Your task to perform on an android device: move a message to another label in the gmail app Image 0: 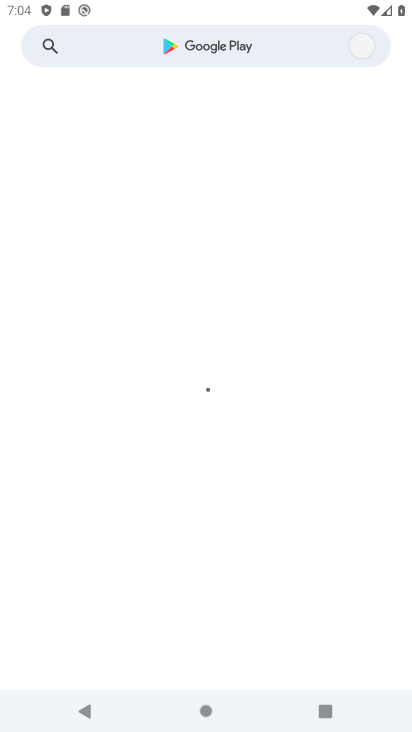
Step 0: press home button
Your task to perform on an android device: move a message to another label in the gmail app Image 1: 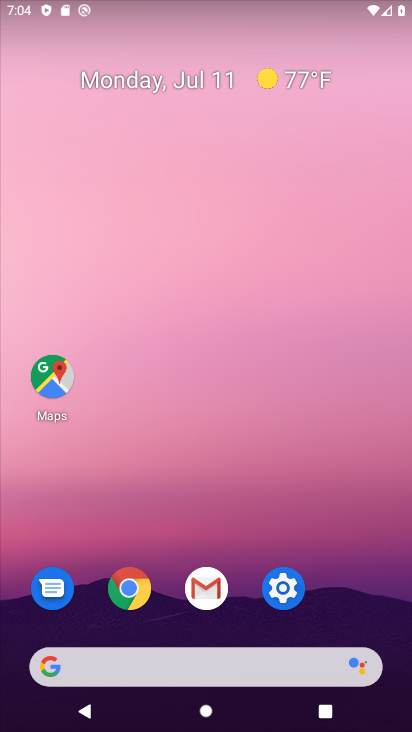
Step 1: click (223, 584)
Your task to perform on an android device: move a message to another label in the gmail app Image 2: 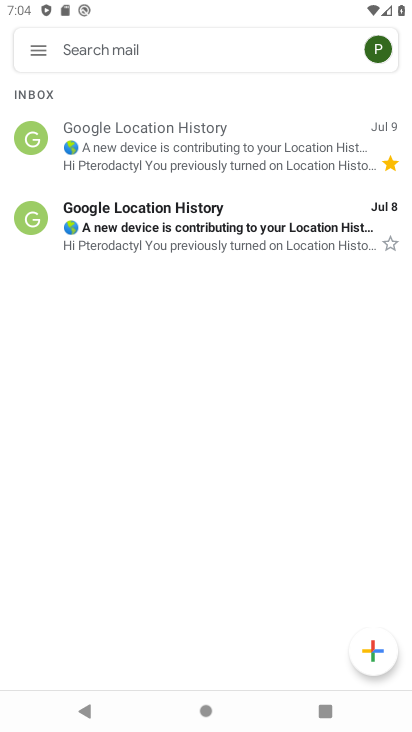
Step 2: click (37, 58)
Your task to perform on an android device: move a message to another label in the gmail app Image 3: 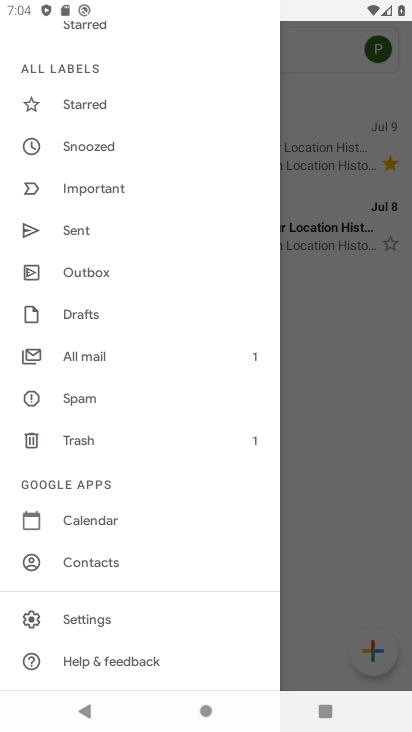
Step 3: click (321, 293)
Your task to perform on an android device: move a message to another label in the gmail app Image 4: 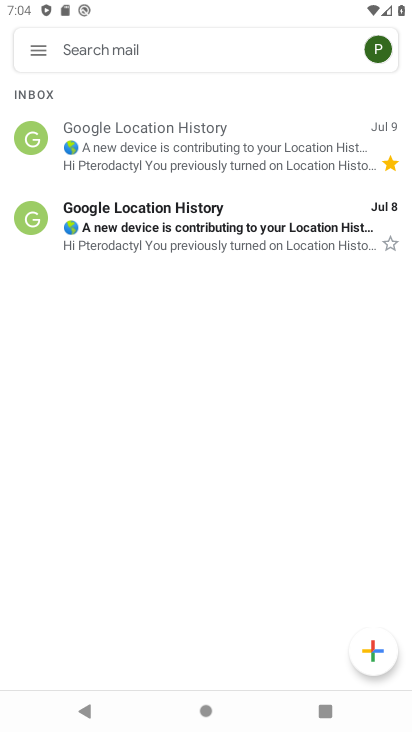
Step 4: click (269, 167)
Your task to perform on an android device: move a message to another label in the gmail app Image 5: 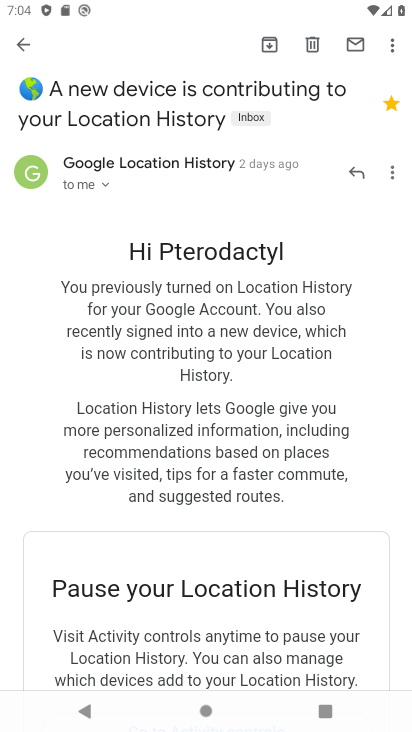
Step 5: click (396, 46)
Your task to perform on an android device: move a message to another label in the gmail app Image 6: 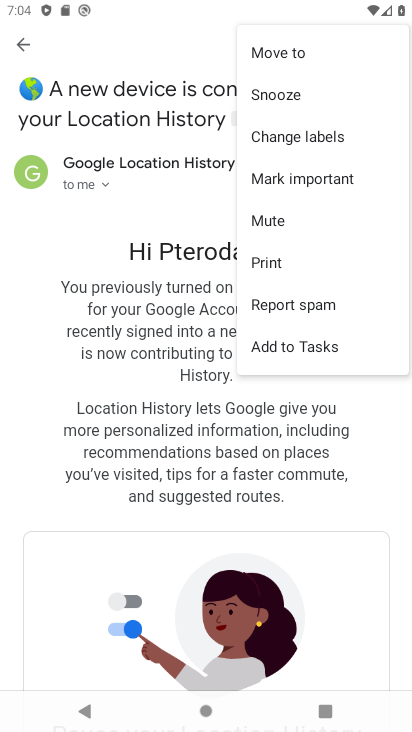
Step 6: click (301, 56)
Your task to perform on an android device: move a message to another label in the gmail app Image 7: 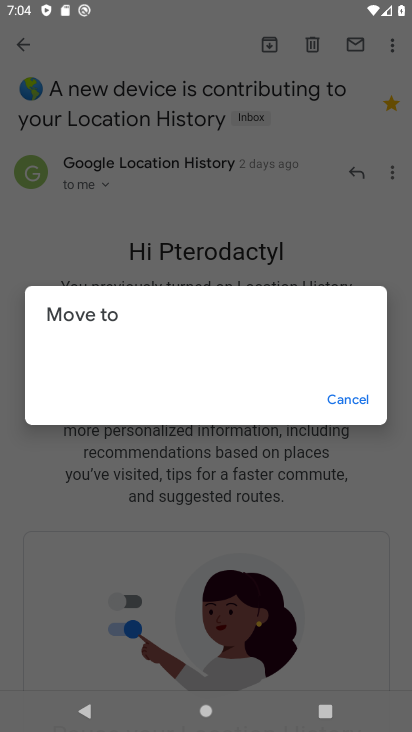
Step 7: click (355, 396)
Your task to perform on an android device: move a message to another label in the gmail app Image 8: 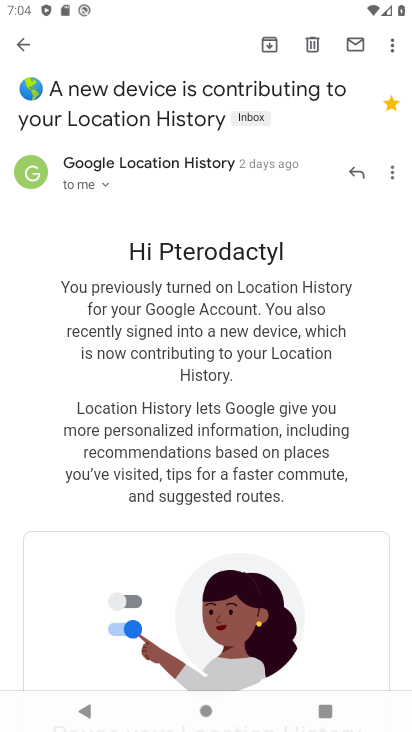
Step 8: click (395, 51)
Your task to perform on an android device: move a message to another label in the gmail app Image 9: 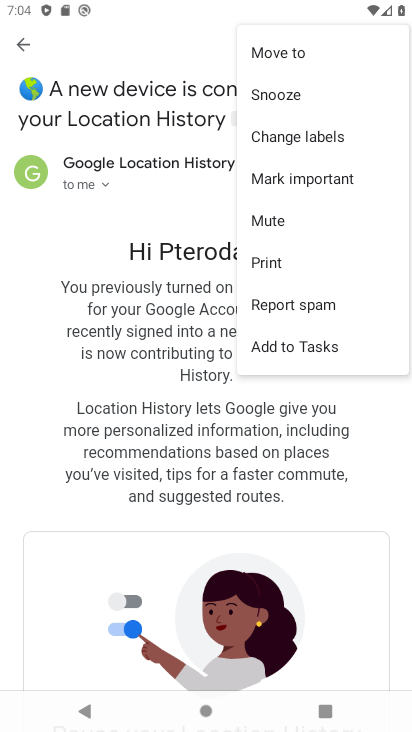
Step 9: click (297, 142)
Your task to perform on an android device: move a message to another label in the gmail app Image 10: 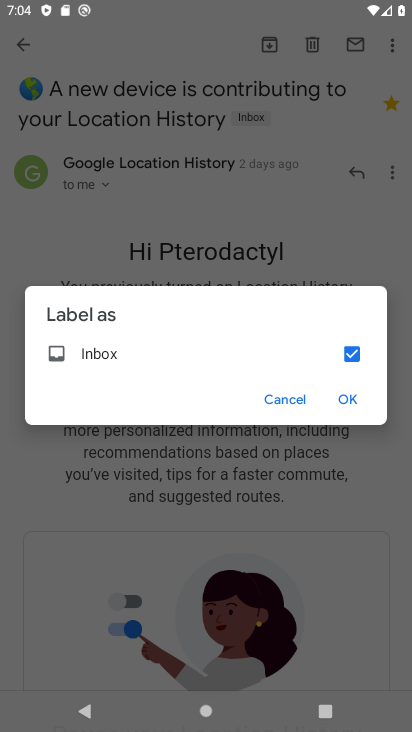
Step 10: click (356, 354)
Your task to perform on an android device: move a message to another label in the gmail app Image 11: 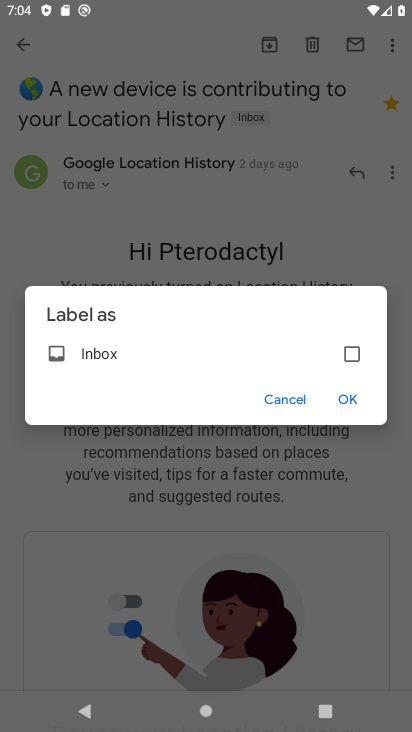
Step 11: click (356, 398)
Your task to perform on an android device: move a message to another label in the gmail app Image 12: 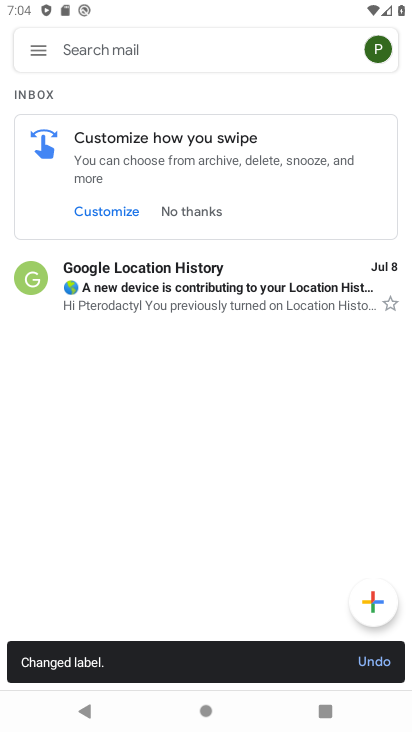
Step 12: task complete